Your task to perform on an android device: turn off sleep mode Image 0: 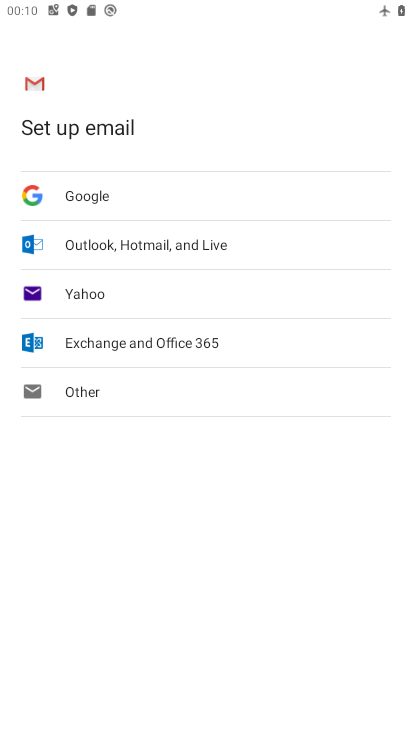
Step 0: press home button
Your task to perform on an android device: turn off sleep mode Image 1: 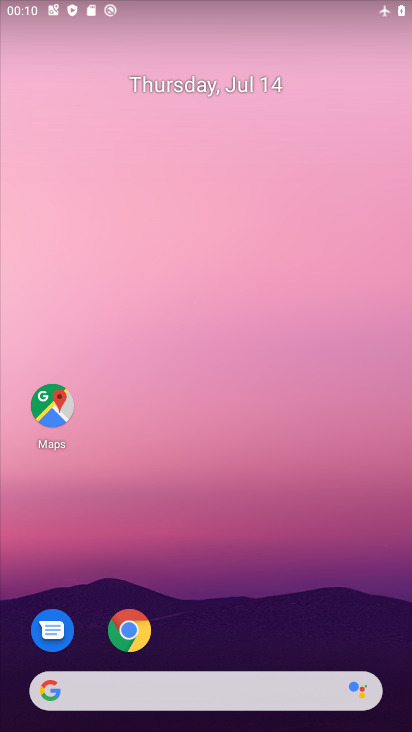
Step 1: drag from (365, 601) to (351, 78)
Your task to perform on an android device: turn off sleep mode Image 2: 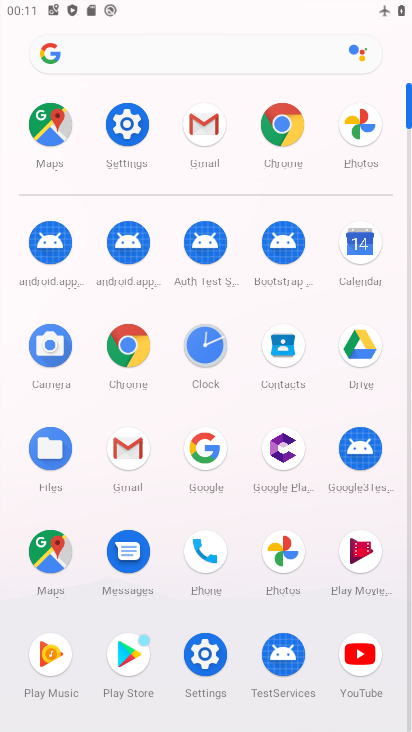
Step 2: click (131, 136)
Your task to perform on an android device: turn off sleep mode Image 3: 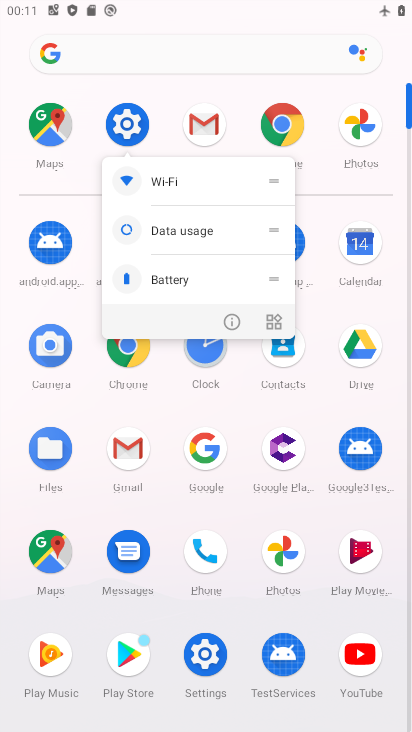
Step 3: click (131, 136)
Your task to perform on an android device: turn off sleep mode Image 4: 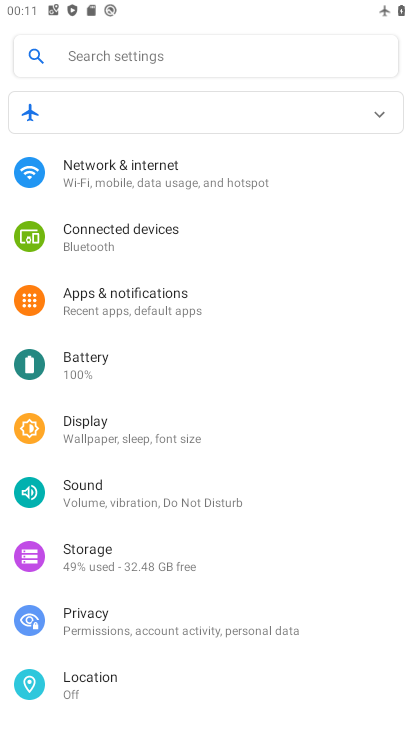
Step 4: drag from (346, 379) to (346, 269)
Your task to perform on an android device: turn off sleep mode Image 5: 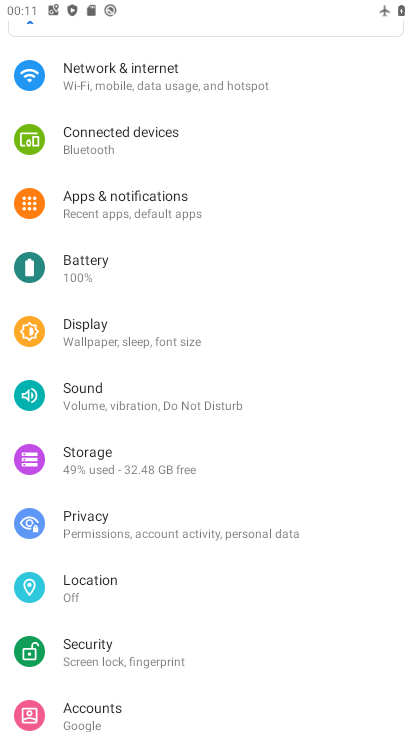
Step 5: drag from (352, 395) to (343, 229)
Your task to perform on an android device: turn off sleep mode Image 6: 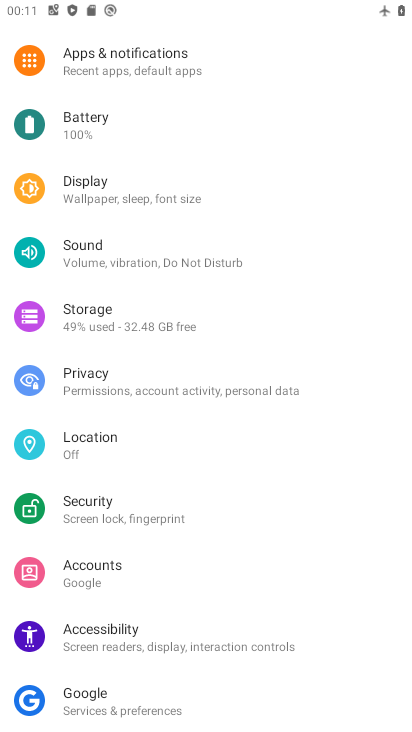
Step 6: drag from (355, 396) to (353, 298)
Your task to perform on an android device: turn off sleep mode Image 7: 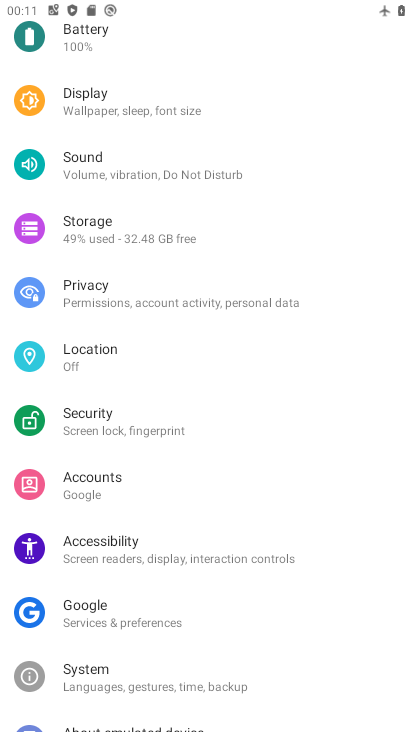
Step 7: drag from (352, 418) to (351, 324)
Your task to perform on an android device: turn off sleep mode Image 8: 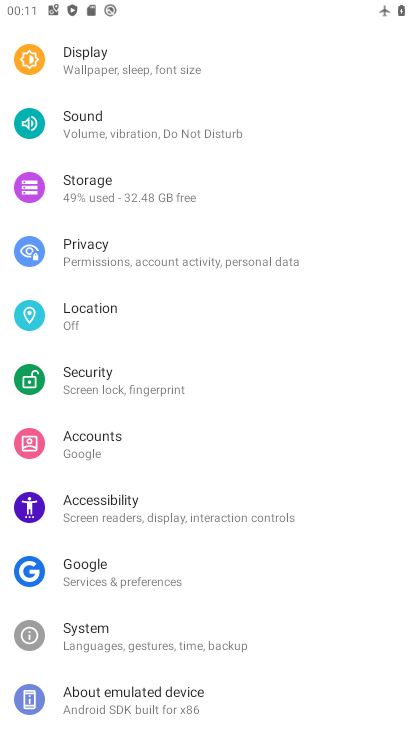
Step 8: drag from (349, 423) to (348, 339)
Your task to perform on an android device: turn off sleep mode Image 9: 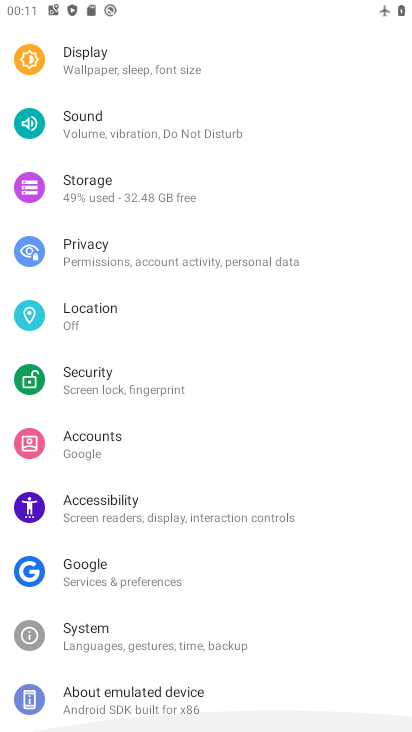
Step 9: drag from (349, 311) to (354, 385)
Your task to perform on an android device: turn off sleep mode Image 10: 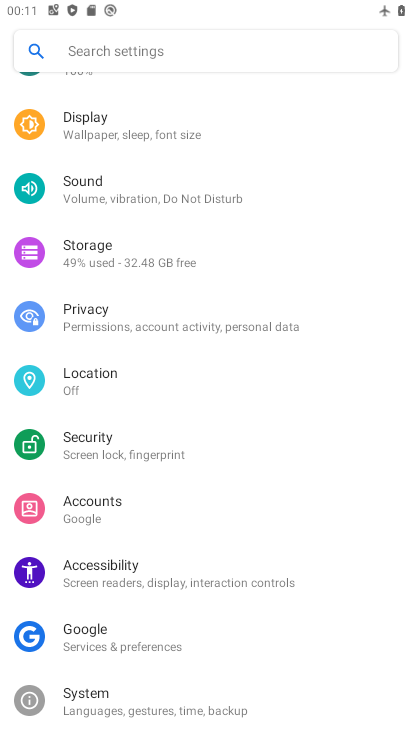
Step 10: drag from (357, 292) to (364, 369)
Your task to perform on an android device: turn off sleep mode Image 11: 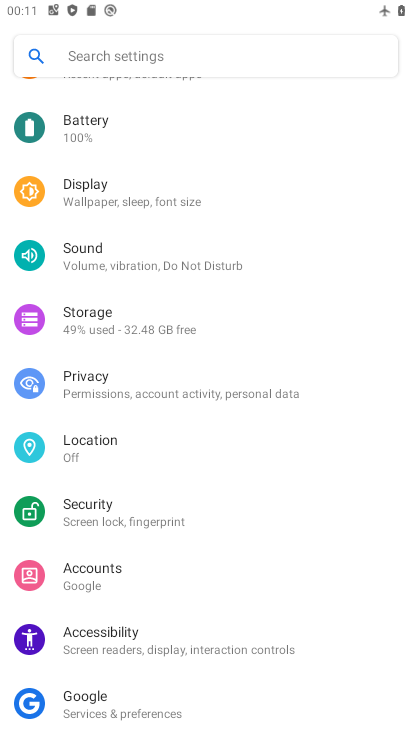
Step 11: drag from (349, 268) to (349, 364)
Your task to perform on an android device: turn off sleep mode Image 12: 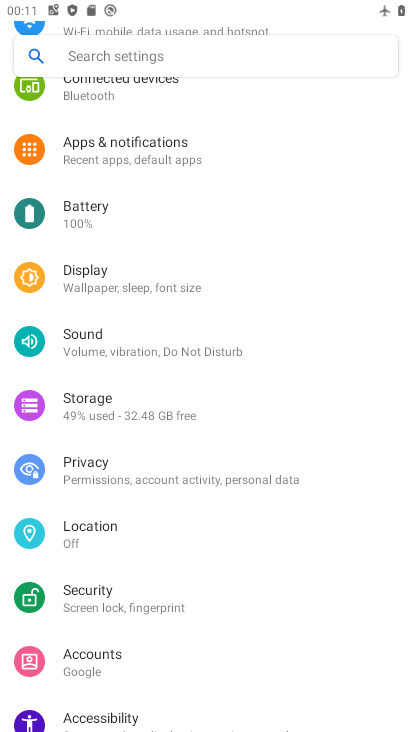
Step 12: drag from (334, 266) to (338, 394)
Your task to perform on an android device: turn off sleep mode Image 13: 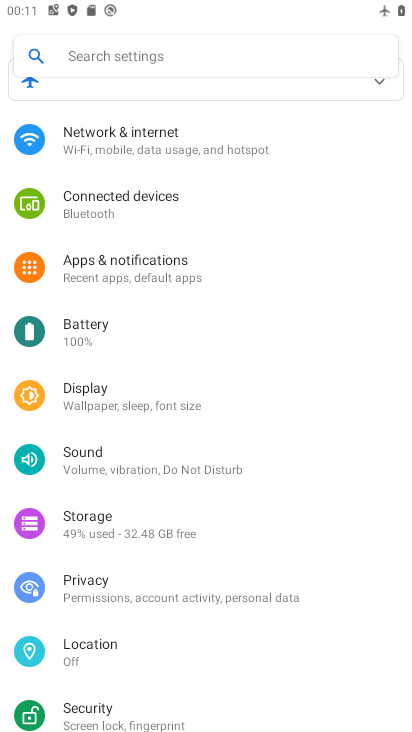
Step 13: click (263, 400)
Your task to perform on an android device: turn off sleep mode Image 14: 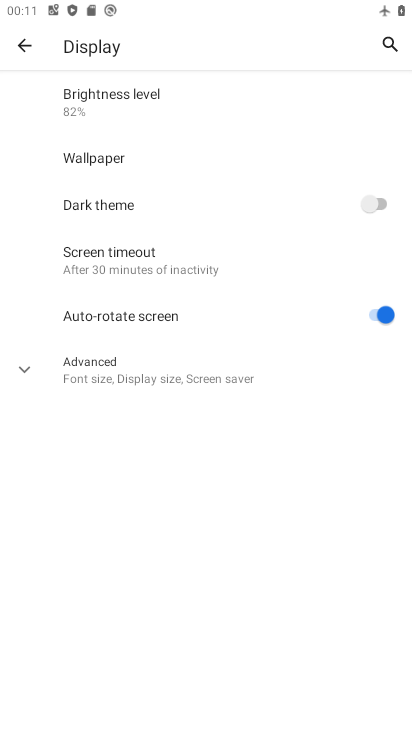
Step 14: click (240, 360)
Your task to perform on an android device: turn off sleep mode Image 15: 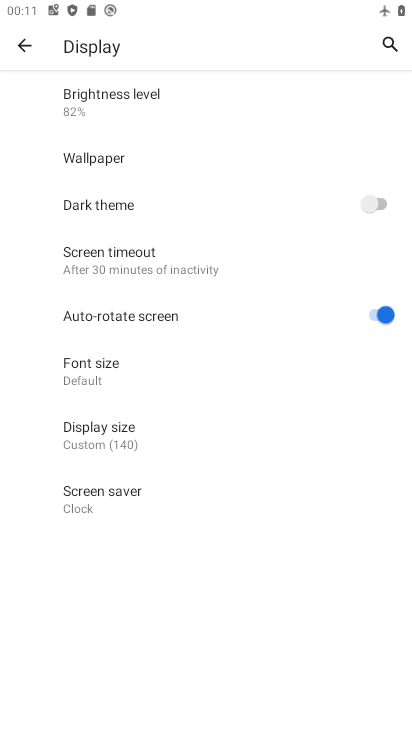
Step 15: task complete